Your task to perform on an android device: move an email to a new category in the gmail app Image 0: 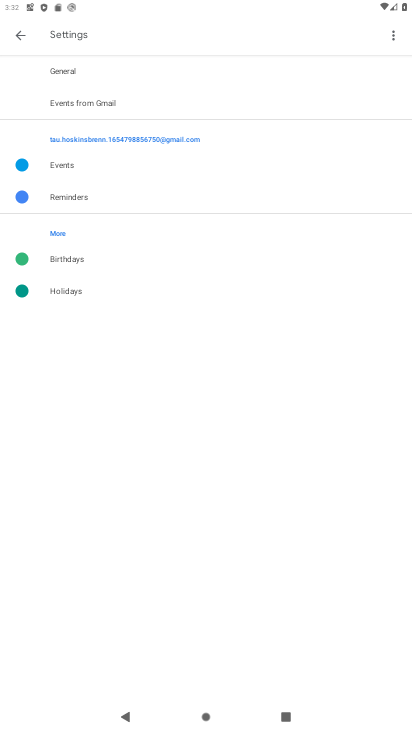
Step 0: press home button
Your task to perform on an android device: move an email to a new category in the gmail app Image 1: 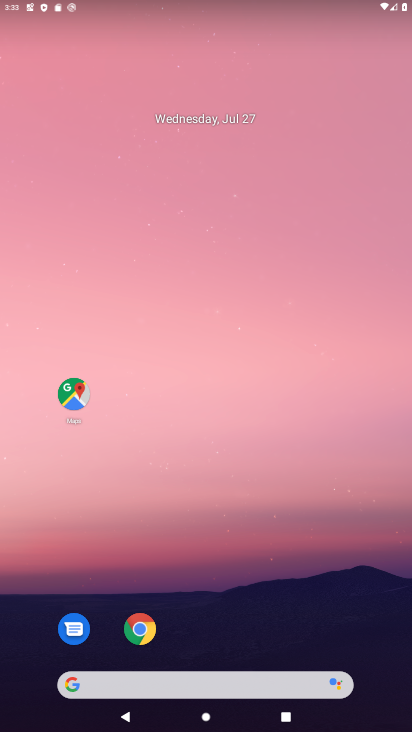
Step 1: drag from (287, 600) to (249, 63)
Your task to perform on an android device: move an email to a new category in the gmail app Image 2: 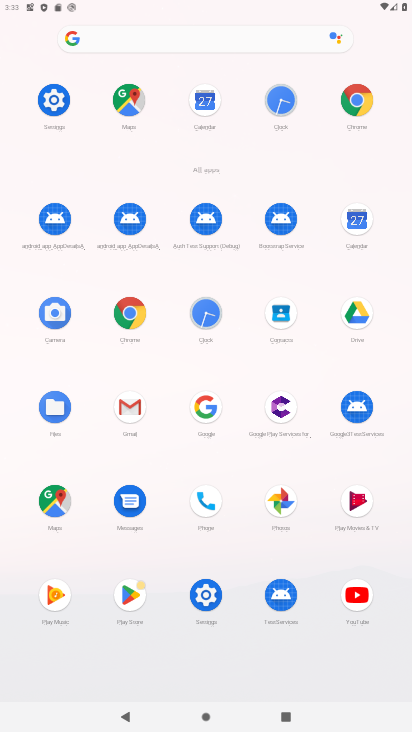
Step 2: click (137, 402)
Your task to perform on an android device: move an email to a new category in the gmail app Image 3: 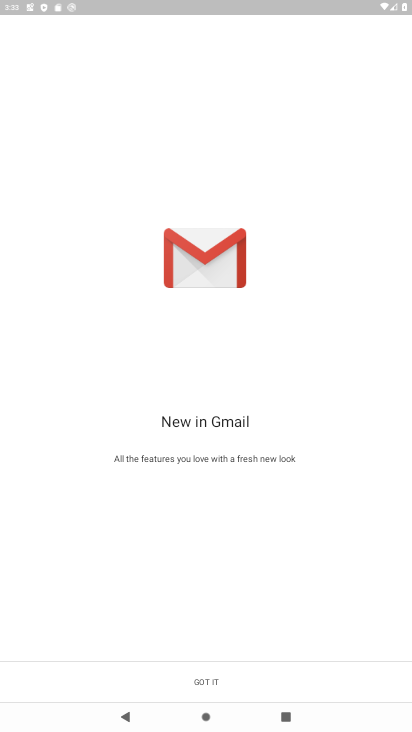
Step 3: click (342, 675)
Your task to perform on an android device: move an email to a new category in the gmail app Image 4: 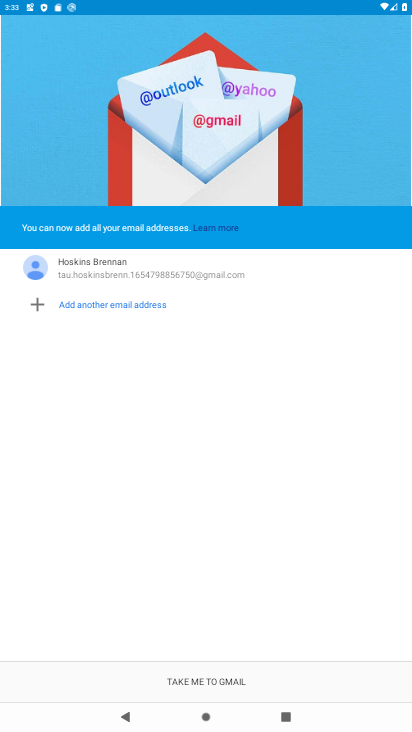
Step 4: click (290, 671)
Your task to perform on an android device: move an email to a new category in the gmail app Image 5: 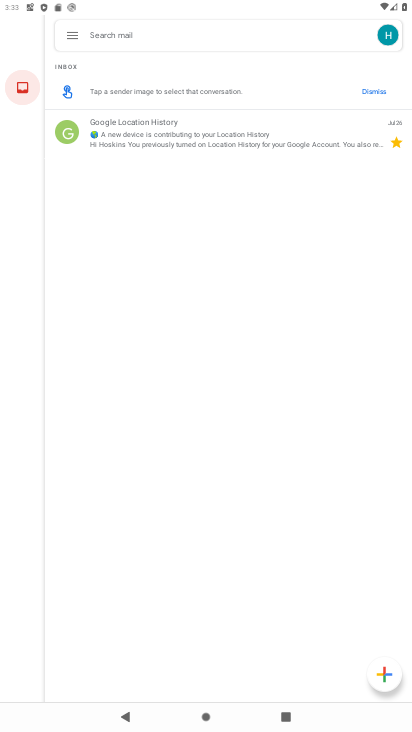
Step 5: click (66, 36)
Your task to perform on an android device: move an email to a new category in the gmail app Image 6: 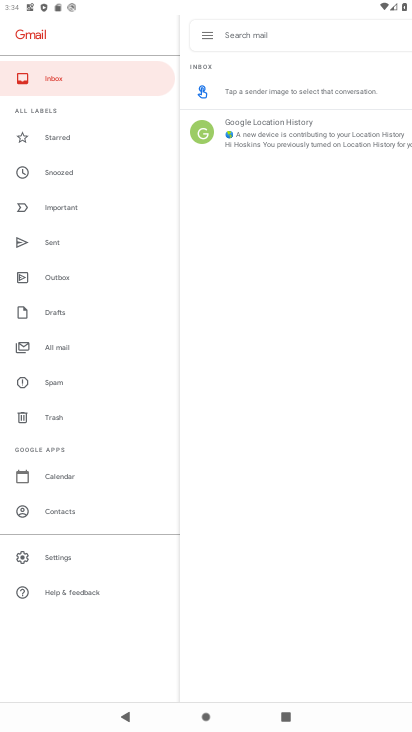
Step 6: click (52, 344)
Your task to perform on an android device: move an email to a new category in the gmail app Image 7: 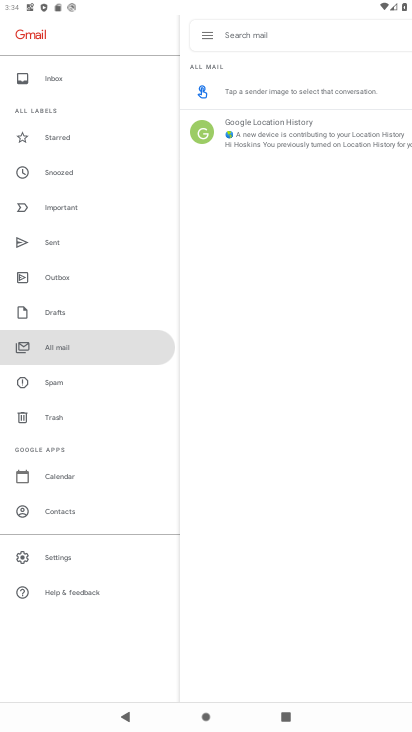
Step 7: click (329, 140)
Your task to perform on an android device: move an email to a new category in the gmail app Image 8: 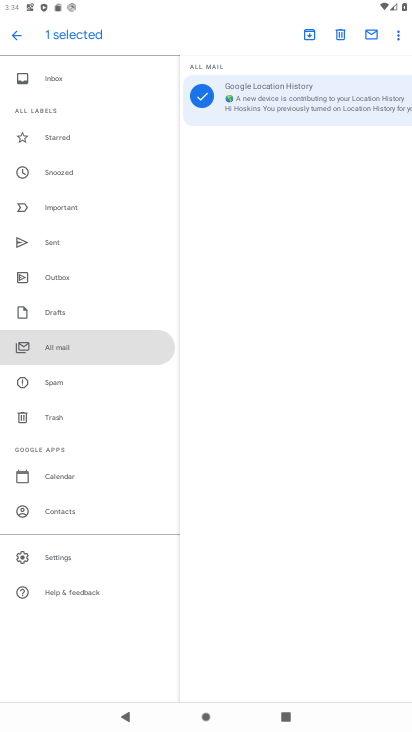
Step 8: click (398, 37)
Your task to perform on an android device: move an email to a new category in the gmail app Image 9: 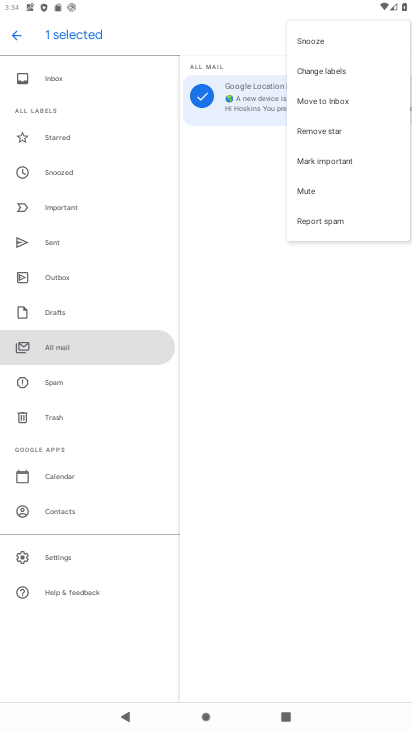
Step 9: click (330, 106)
Your task to perform on an android device: move an email to a new category in the gmail app Image 10: 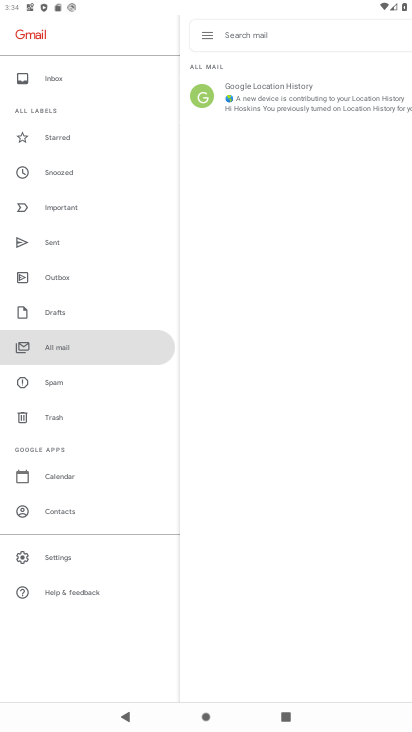
Step 10: task complete